Your task to perform on an android device: Go to Google maps Image 0: 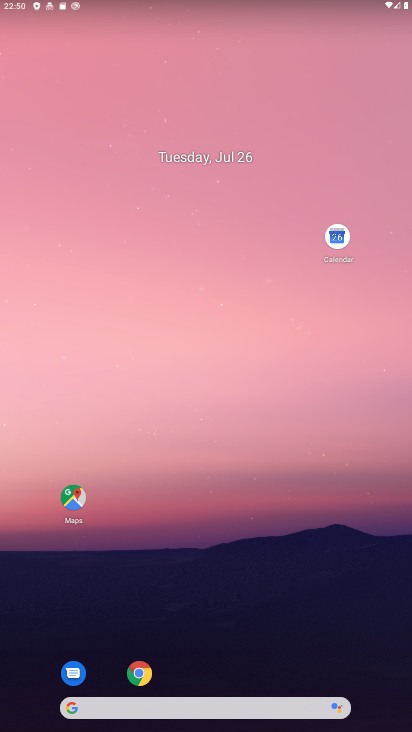
Step 0: drag from (235, 683) to (185, 142)
Your task to perform on an android device: Go to Google maps Image 1: 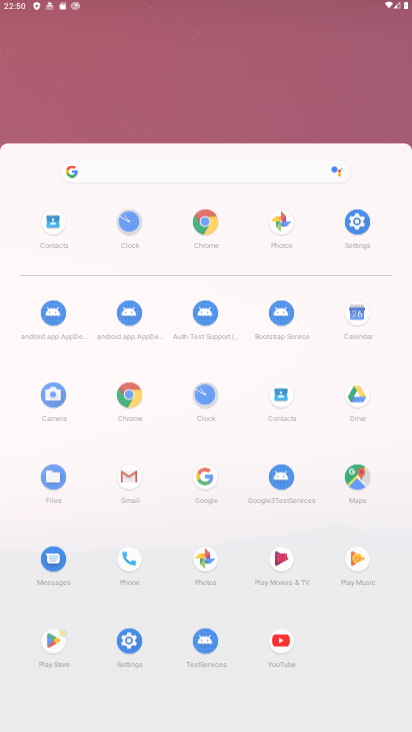
Step 1: drag from (238, 425) to (238, 40)
Your task to perform on an android device: Go to Google maps Image 2: 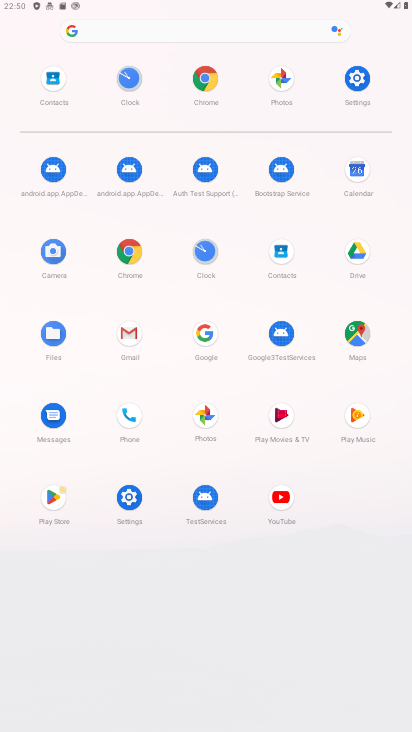
Step 2: drag from (226, 434) to (178, 133)
Your task to perform on an android device: Go to Google maps Image 3: 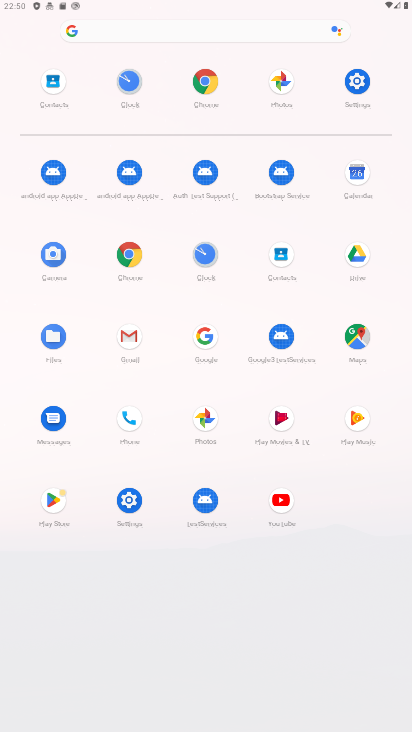
Step 3: click (350, 336)
Your task to perform on an android device: Go to Google maps Image 4: 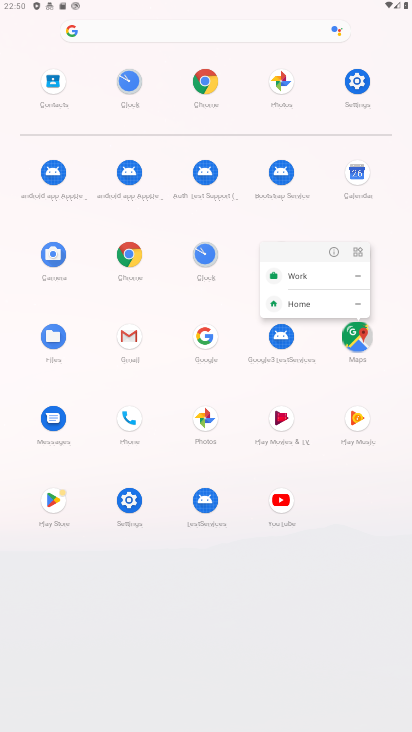
Step 4: click (350, 336)
Your task to perform on an android device: Go to Google maps Image 5: 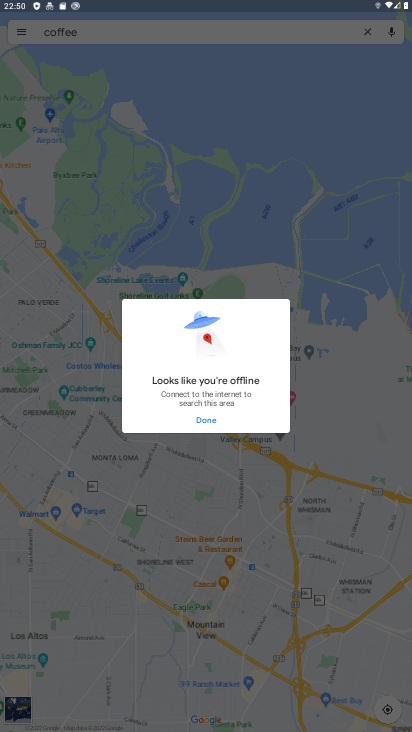
Step 5: task complete